Your task to perform on an android device: turn off sleep mode Image 0: 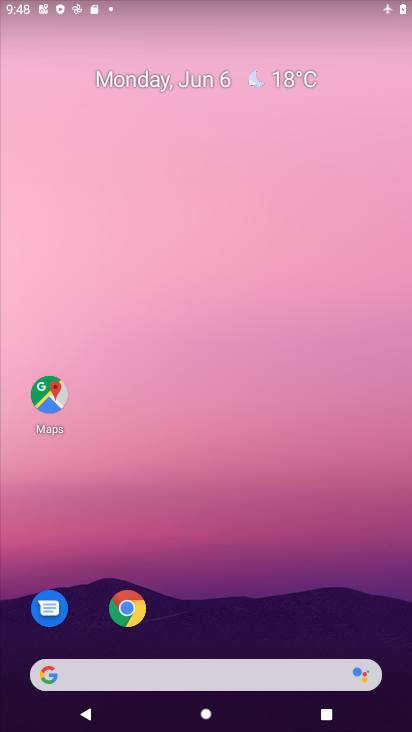
Step 0: drag from (252, 601) to (307, 159)
Your task to perform on an android device: turn off sleep mode Image 1: 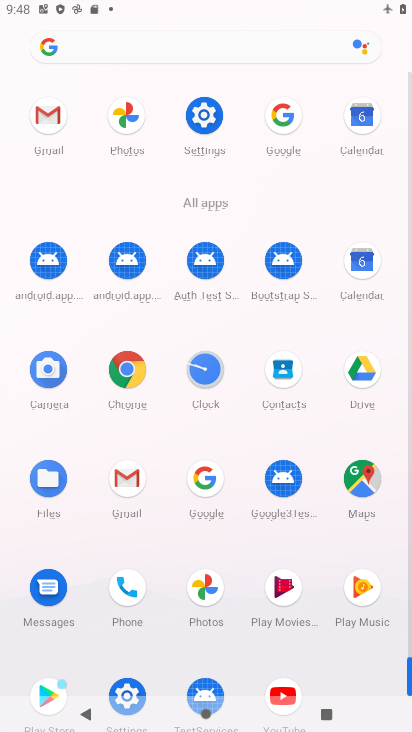
Step 1: click (205, 114)
Your task to perform on an android device: turn off sleep mode Image 2: 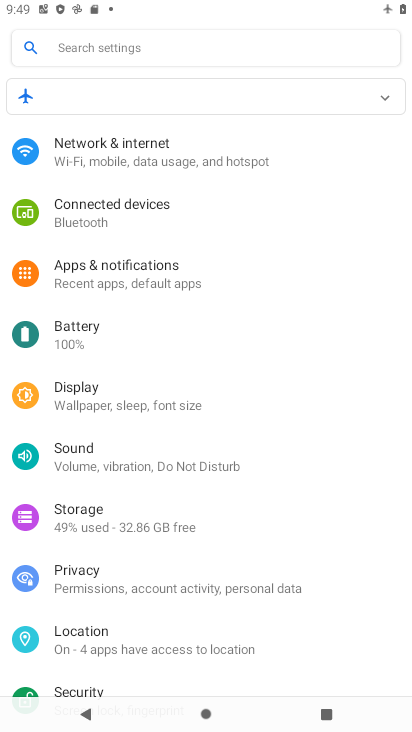
Step 2: click (161, 408)
Your task to perform on an android device: turn off sleep mode Image 3: 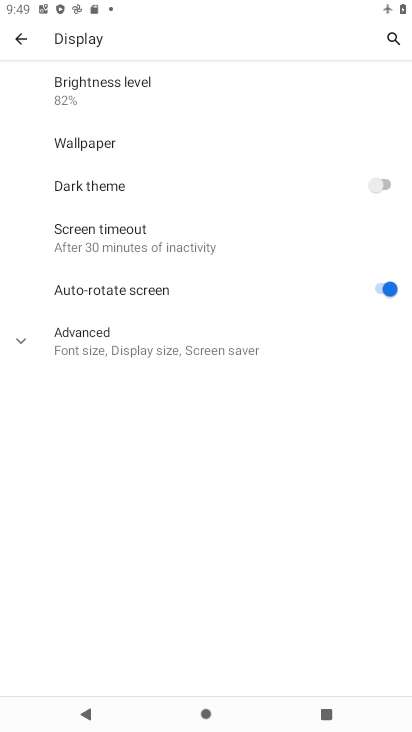
Step 3: click (133, 251)
Your task to perform on an android device: turn off sleep mode Image 4: 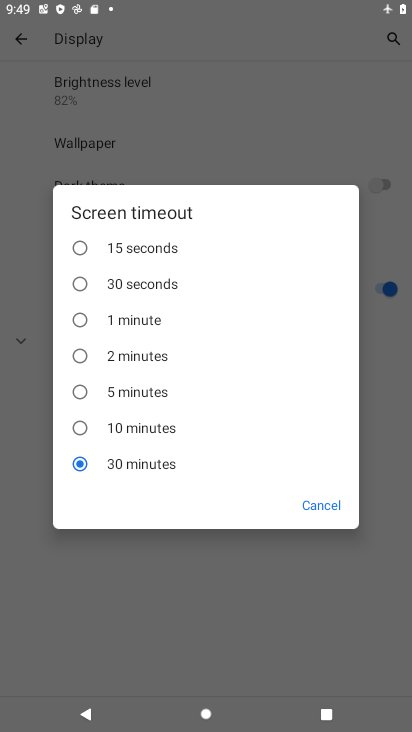
Step 4: click (334, 508)
Your task to perform on an android device: turn off sleep mode Image 5: 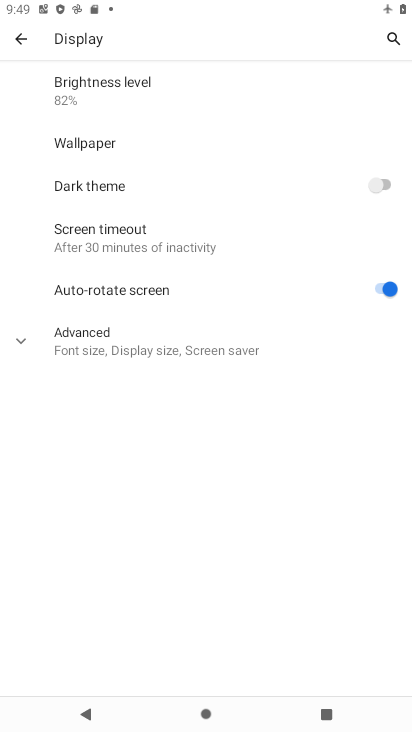
Step 5: click (145, 356)
Your task to perform on an android device: turn off sleep mode Image 6: 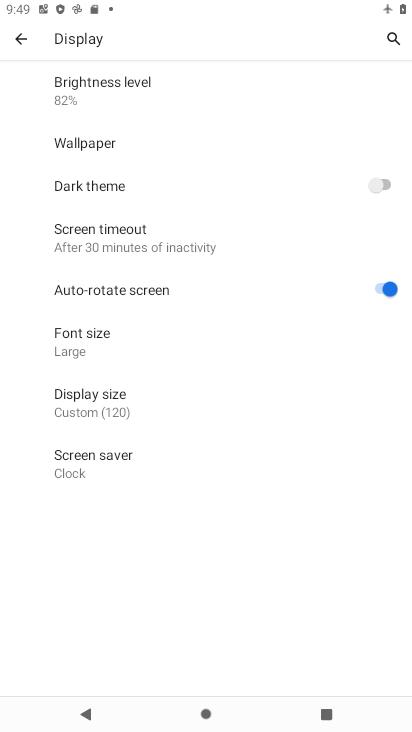
Step 6: click (107, 460)
Your task to perform on an android device: turn off sleep mode Image 7: 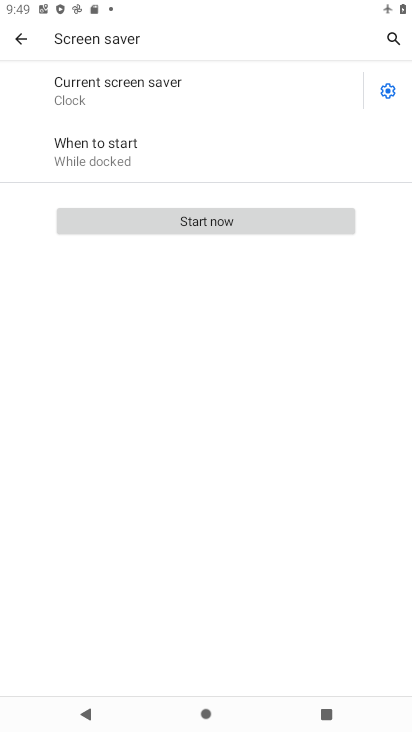
Step 7: click (392, 88)
Your task to perform on an android device: turn off sleep mode Image 8: 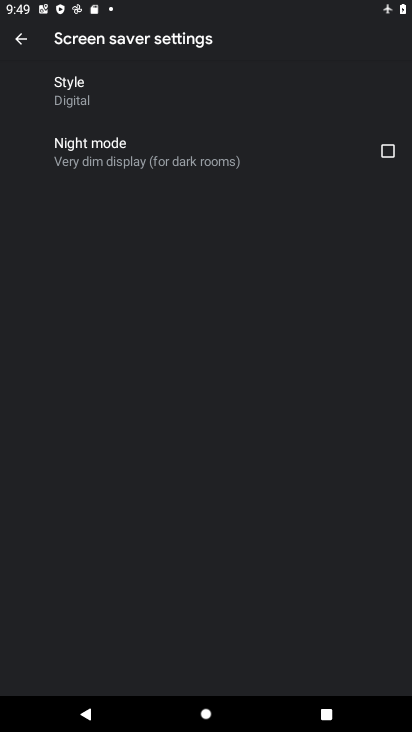
Step 8: task complete